Your task to perform on an android device: empty trash in google photos Image 0: 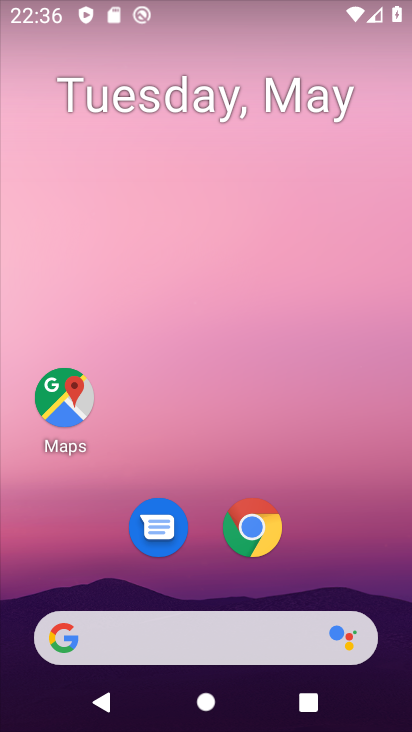
Step 0: drag from (202, 573) to (232, 74)
Your task to perform on an android device: empty trash in google photos Image 1: 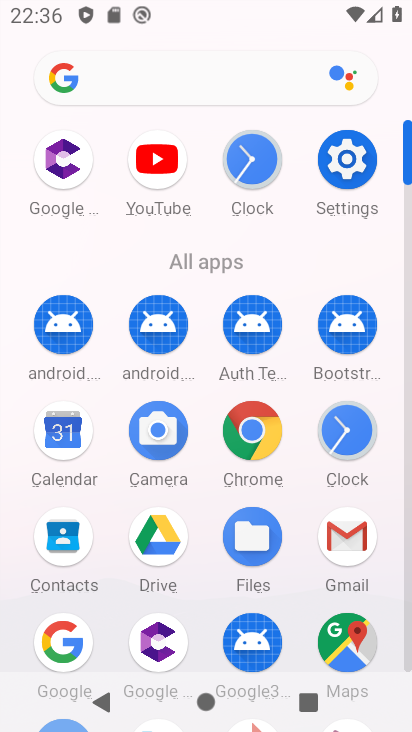
Step 1: drag from (205, 575) to (206, 207)
Your task to perform on an android device: empty trash in google photos Image 2: 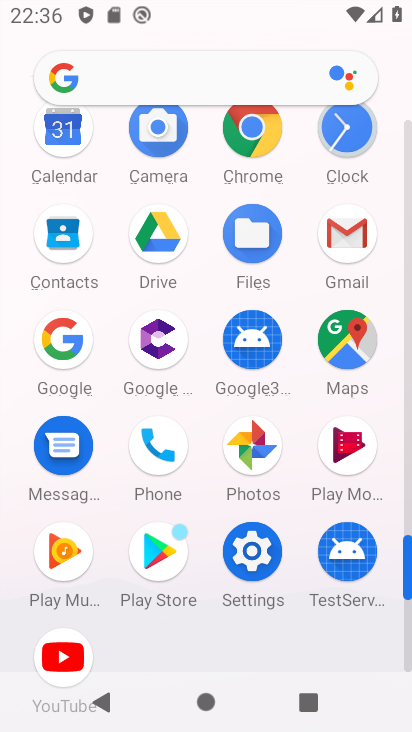
Step 2: click (245, 445)
Your task to perform on an android device: empty trash in google photos Image 3: 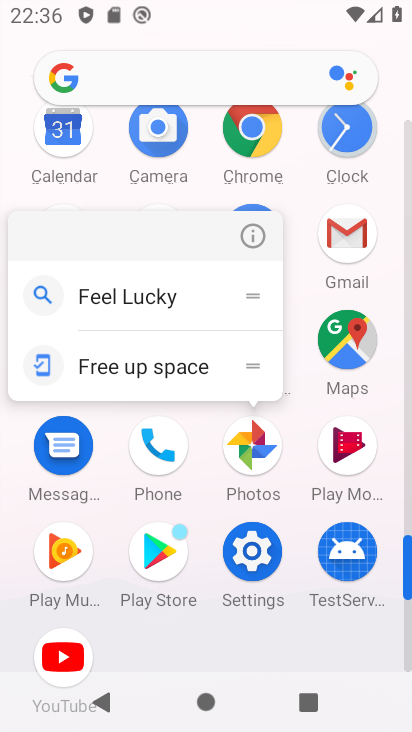
Step 3: click (237, 233)
Your task to perform on an android device: empty trash in google photos Image 4: 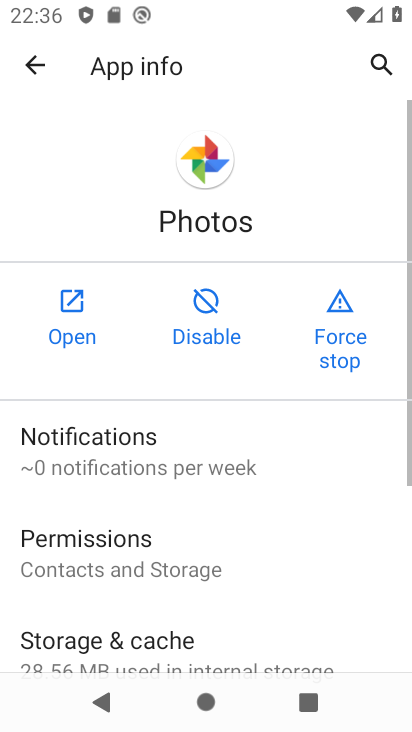
Step 4: click (32, 306)
Your task to perform on an android device: empty trash in google photos Image 5: 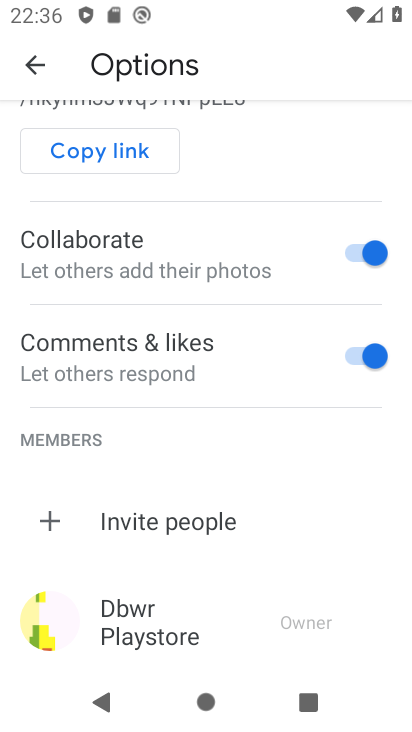
Step 5: drag from (142, 282) to (366, 730)
Your task to perform on an android device: empty trash in google photos Image 6: 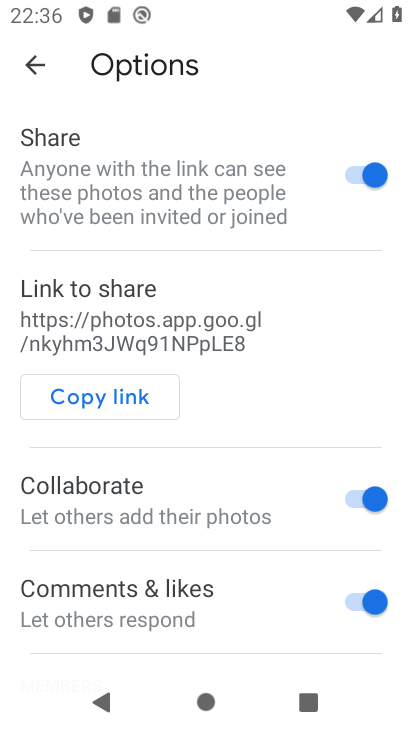
Step 6: click (46, 56)
Your task to perform on an android device: empty trash in google photos Image 7: 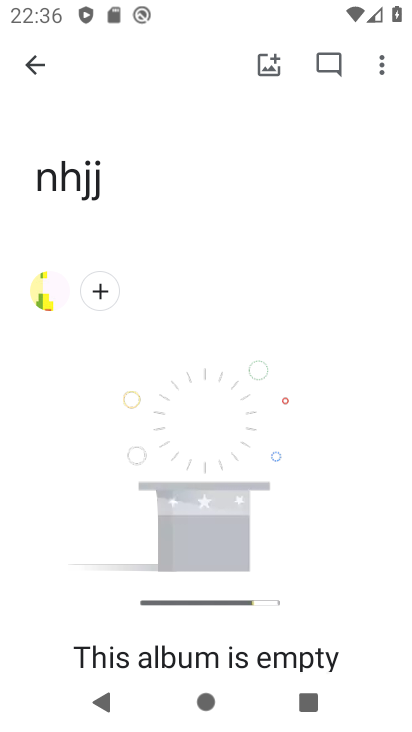
Step 7: click (49, 60)
Your task to perform on an android device: empty trash in google photos Image 8: 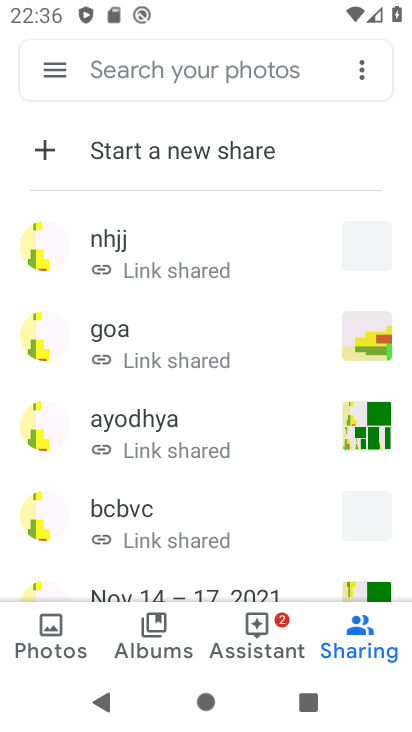
Step 8: click (48, 67)
Your task to perform on an android device: empty trash in google photos Image 9: 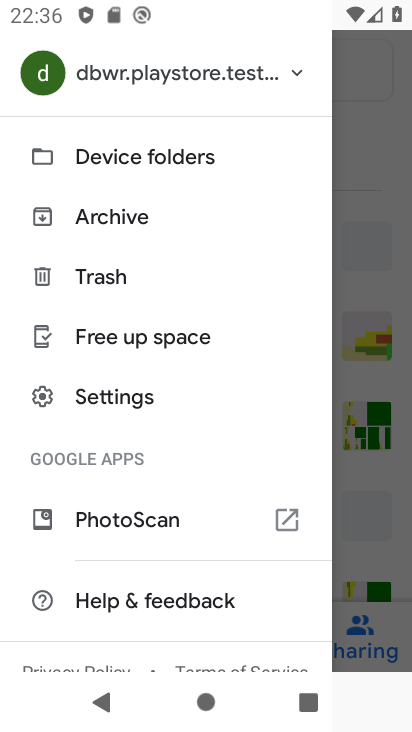
Step 9: click (127, 288)
Your task to perform on an android device: empty trash in google photos Image 10: 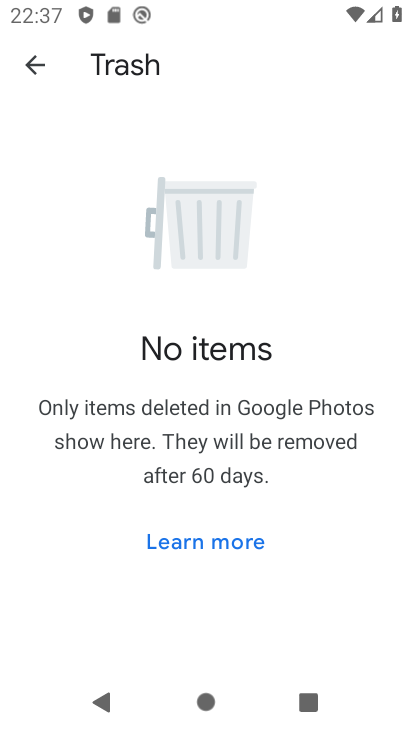
Step 10: drag from (237, 616) to (261, 231)
Your task to perform on an android device: empty trash in google photos Image 11: 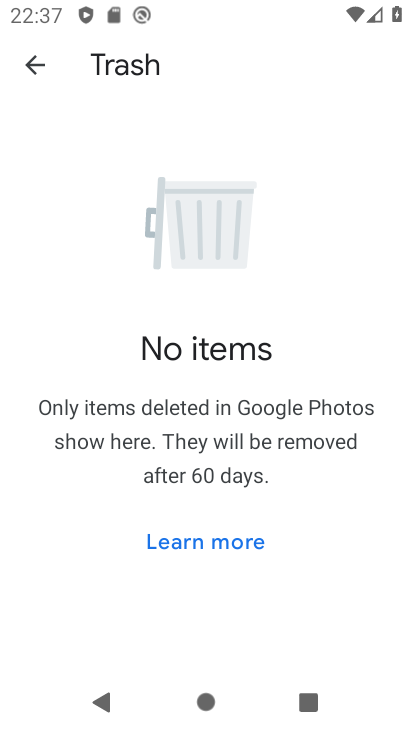
Step 11: drag from (232, 158) to (320, 535)
Your task to perform on an android device: empty trash in google photos Image 12: 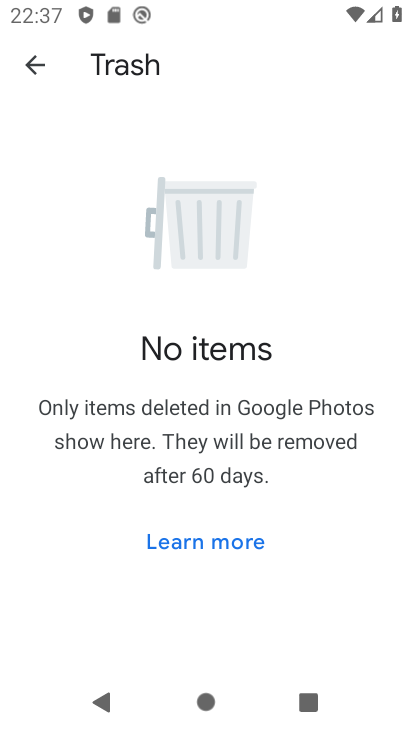
Step 12: drag from (107, 385) to (240, 476)
Your task to perform on an android device: empty trash in google photos Image 13: 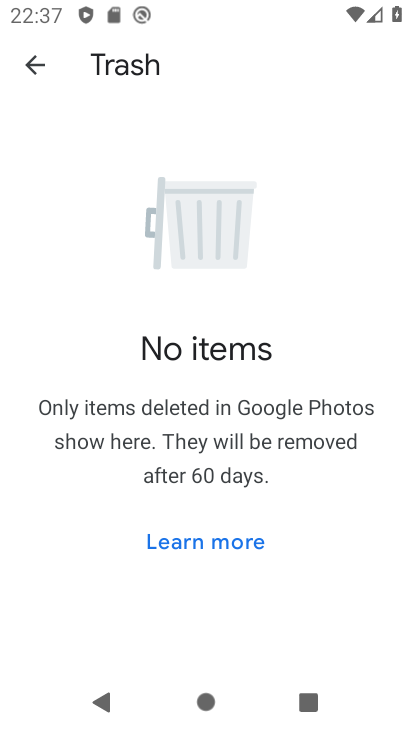
Step 13: click (280, 476)
Your task to perform on an android device: empty trash in google photos Image 14: 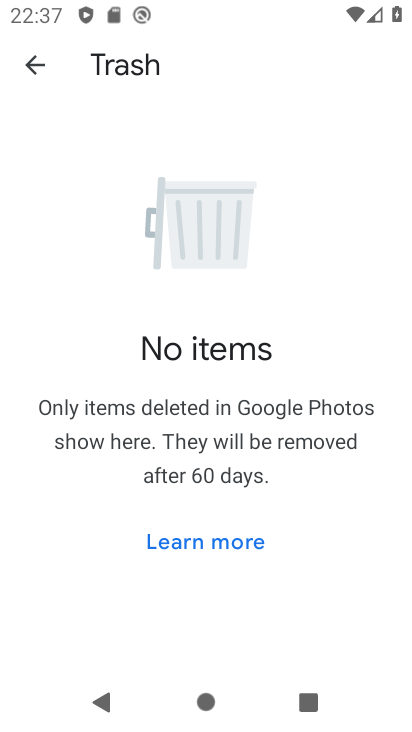
Step 14: click (151, 299)
Your task to perform on an android device: empty trash in google photos Image 15: 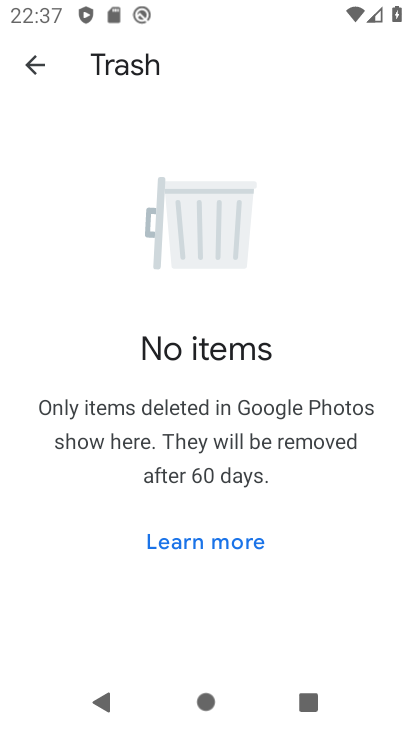
Step 15: click (212, 287)
Your task to perform on an android device: empty trash in google photos Image 16: 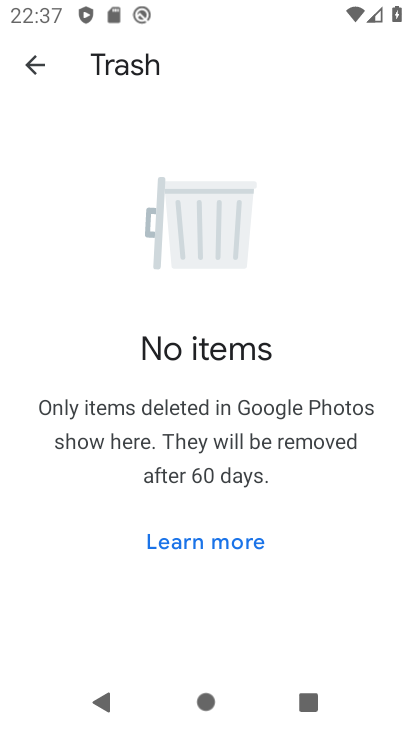
Step 16: click (11, 65)
Your task to perform on an android device: empty trash in google photos Image 17: 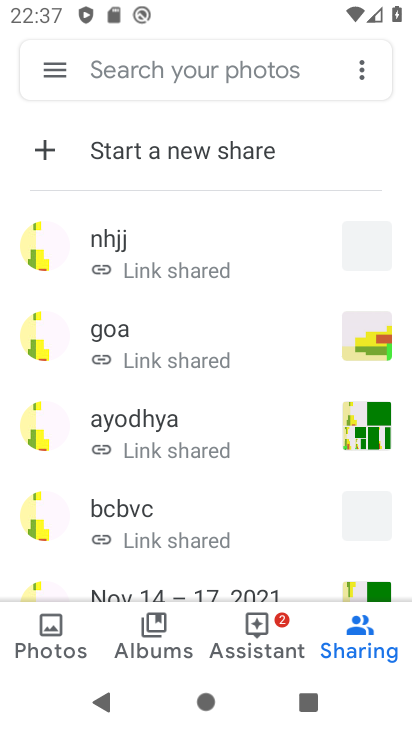
Step 17: click (48, 70)
Your task to perform on an android device: empty trash in google photos Image 18: 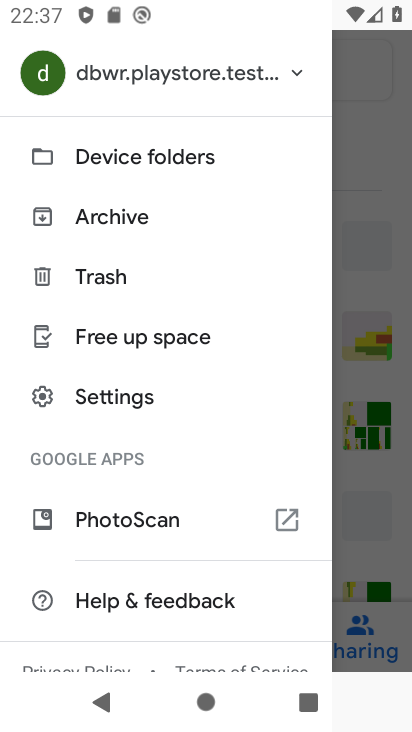
Step 18: click (114, 282)
Your task to perform on an android device: empty trash in google photos Image 19: 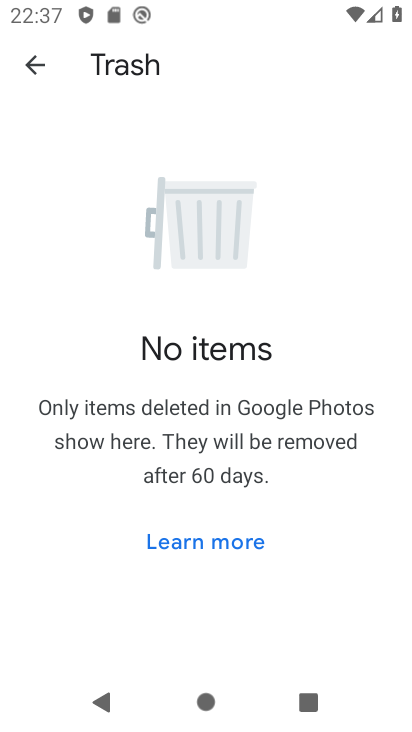
Step 19: task complete